Your task to perform on an android device: move an email to a new category in the gmail app Image 0: 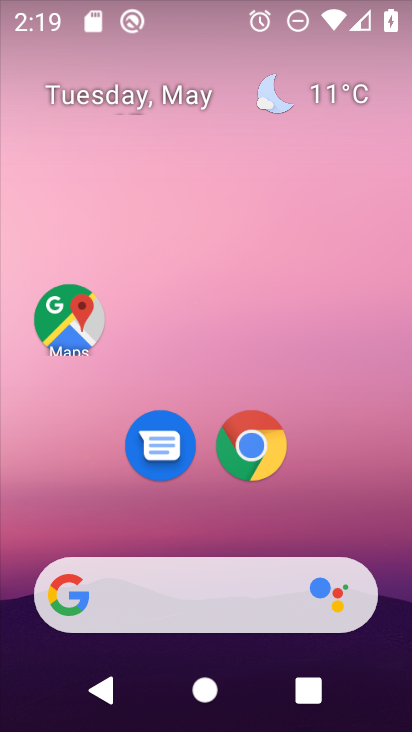
Step 0: drag from (388, 517) to (331, 217)
Your task to perform on an android device: move an email to a new category in the gmail app Image 1: 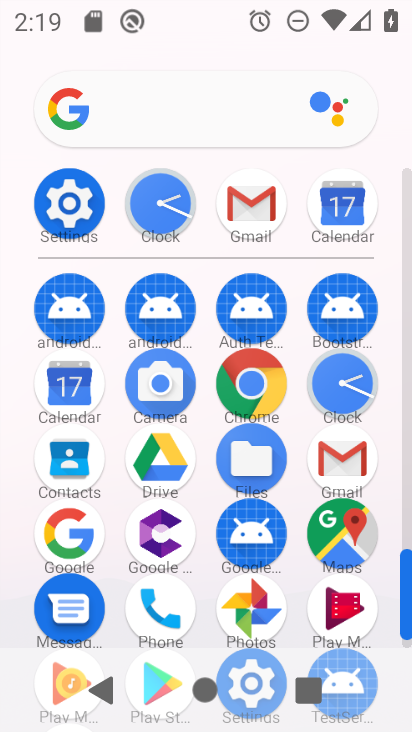
Step 1: click (339, 461)
Your task to perform on an android device: move an email to a new category in the gmail app Image 2: 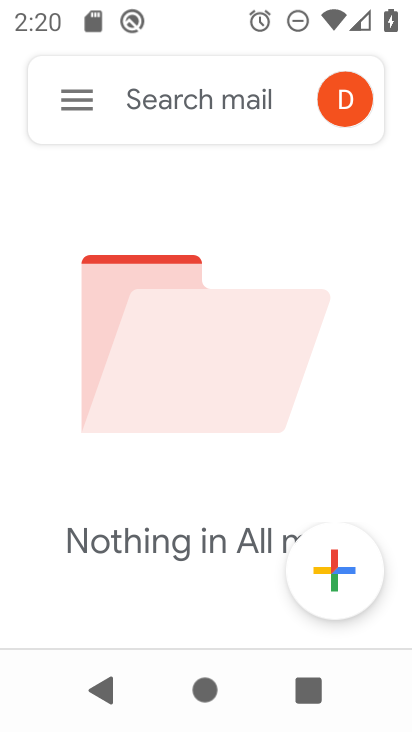
Step 2: click (70, 92)
Your task to perform on an android device: move an email to a new category in the gmail app Image 3: 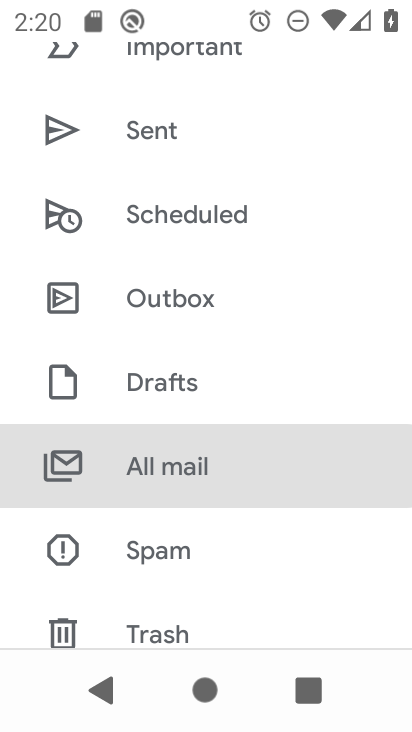
Step 3: click (213, 469)
Your task to perform on an android device: move an email to a new category in the gmail app Image 4: 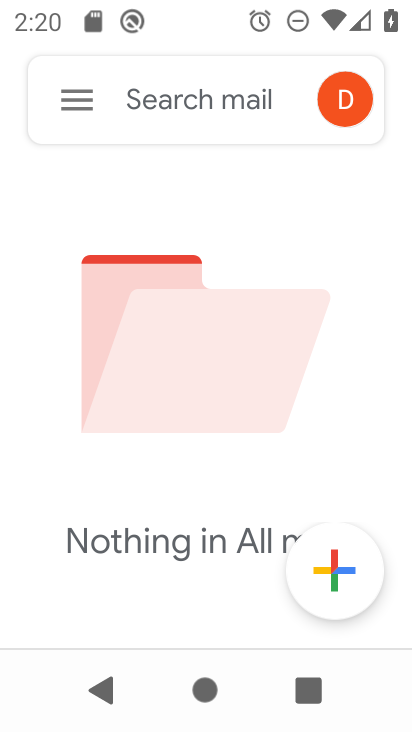
Step 4: task complete